Your task to perform on an android device: Go to Yahoo.com Image 0: 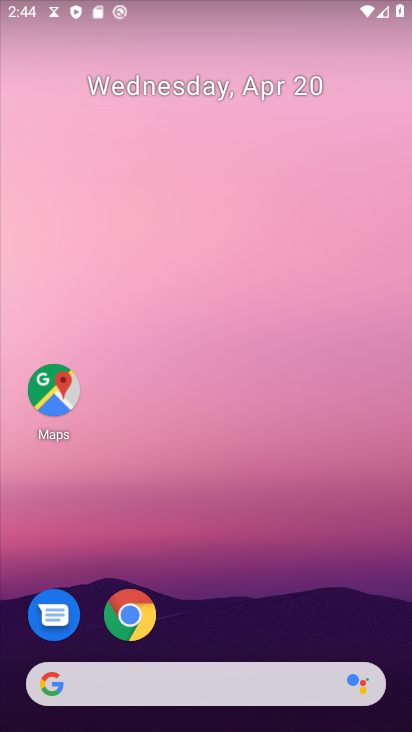
Step 0: drag from (225, 622) to (307, 120)
Your task to perform on an android device: Go to Yahoo.com Image 1: 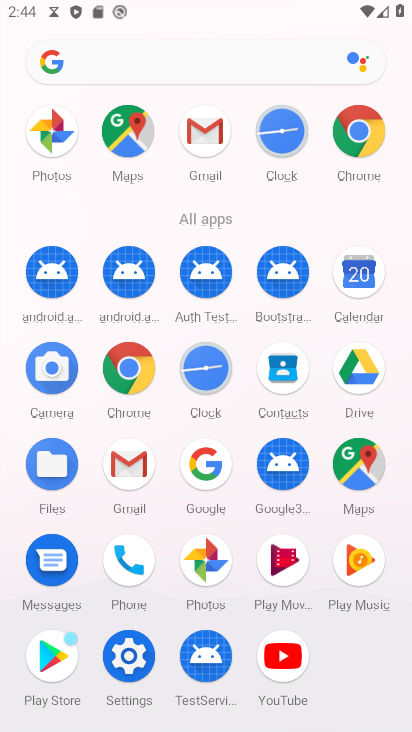
Step 1: click (369, 128)
Your task to perform on an android device: Go to Yahoo.com Image 2: 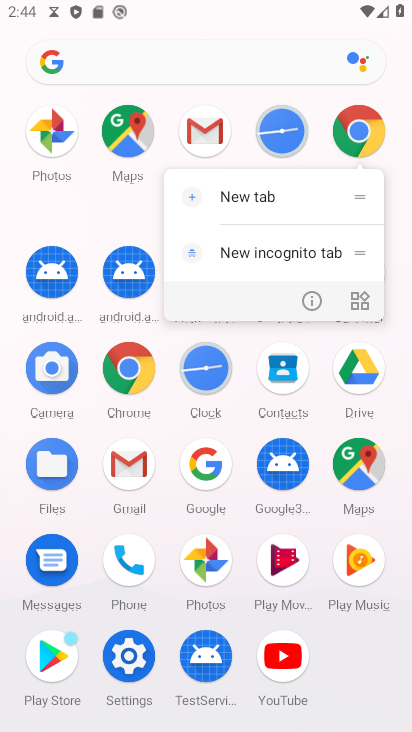
Step 2: click (306, 301)
Your task to perform on an android device: Go to Yahoo.com Image 3: 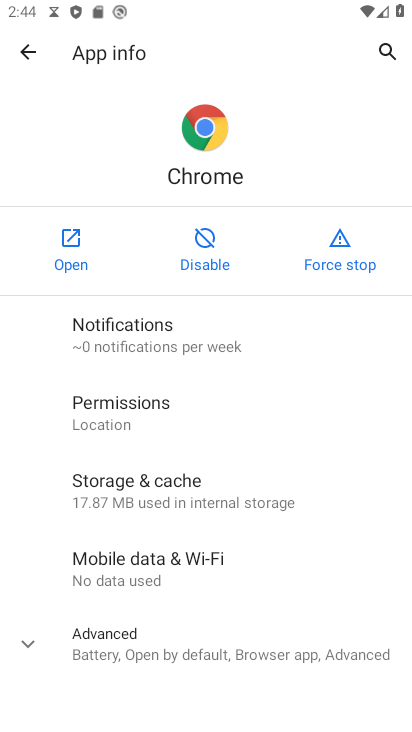
Step 3: click (64, 231)
Your task to perform on an android device: Go to Yahoo.com Image 4: 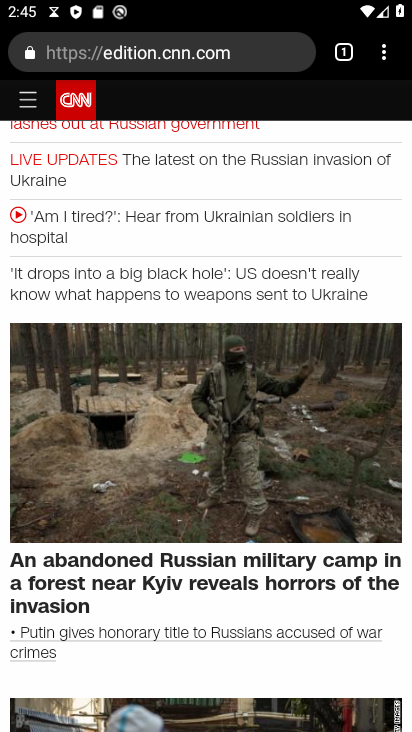
Step 4: drag from (149, 204) to (337, 693)
Your task to perform on an android device: Go to Yahoo.com Image 5: 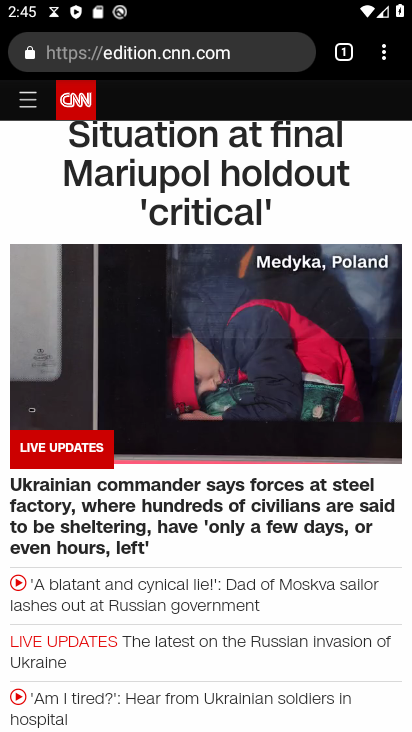
Step 5: click (203, 48)
Your task to perform on an android device: Go to Yahoo.com Image 6: 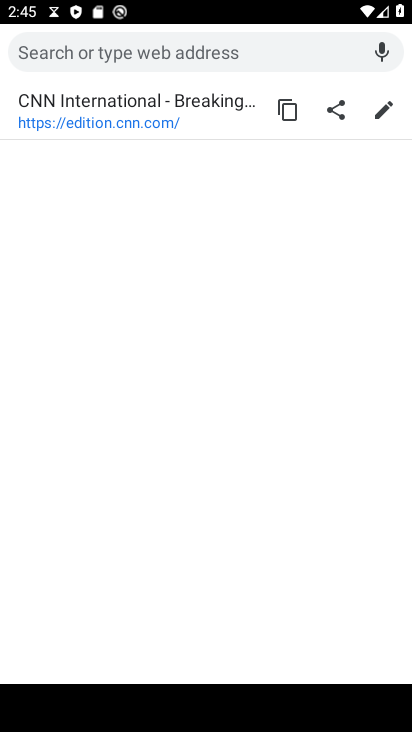
Step 6: type "yahoo"
Your task to perform on an android device: Go to Yahoo.com Image 7: 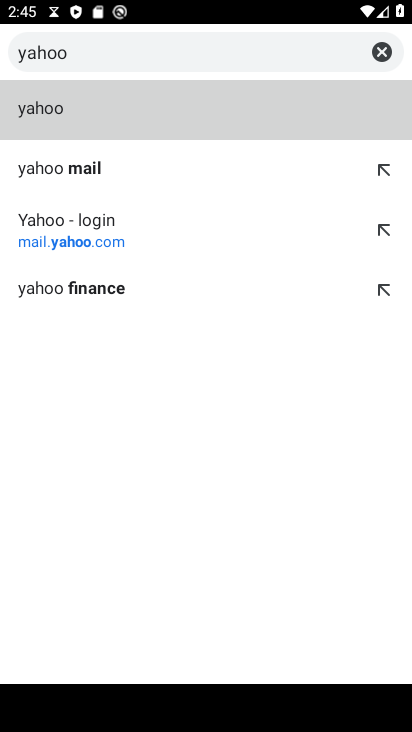
Step 7: click (67, 106)
Your task to perform on an android device: Go to Yahoo.com Image 8: 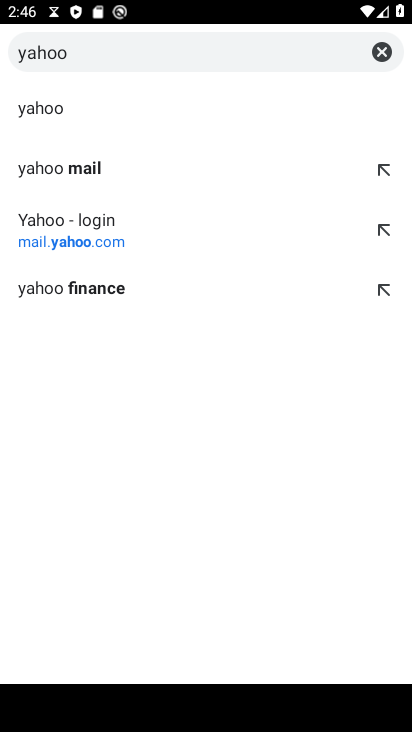
Step 8: task complete